Your task to perform on an android device: What's the weather going to be this weekend? Image 0: 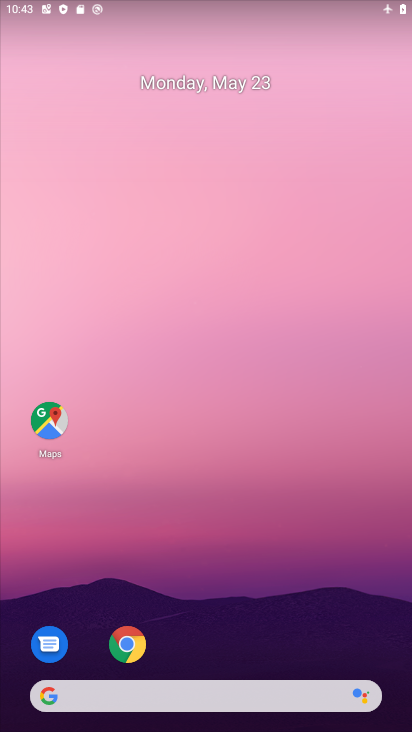
Step 0: drag from (318, 690) to (194, 5)
Your task to perform on an android device: What's the weather going to be this weekend? Image 1: 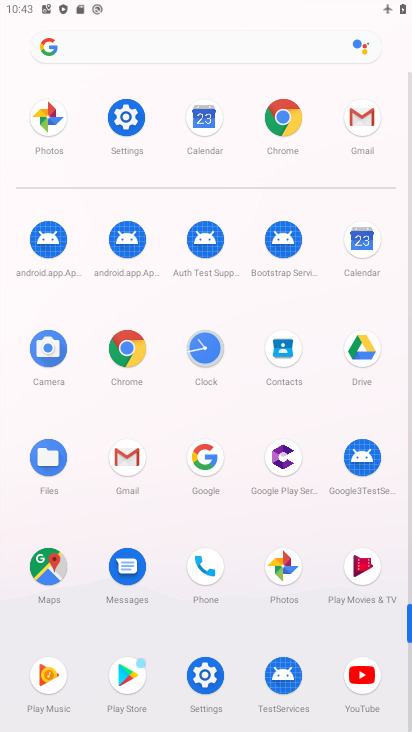
Step 1: task complete